Your task to perform on an android device: Open CNN.com Image 0: 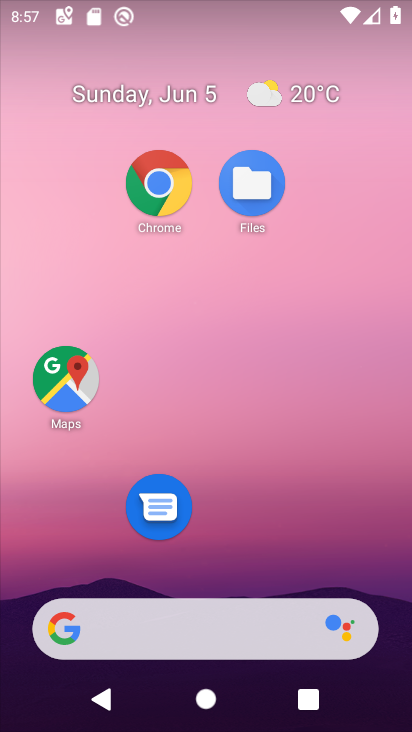
Step 0: click (148, 180)
Your task to perform on an android device: Open CNN.com Image 1: 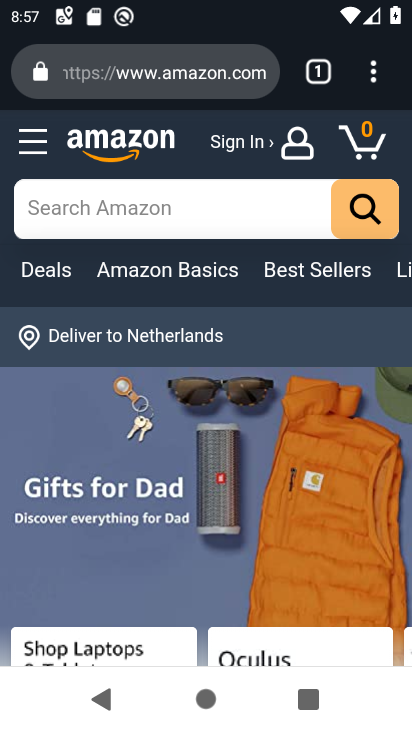
Step 1: click (312, 77)
Your task to perform on an android device: Open CNN.com Image 2: 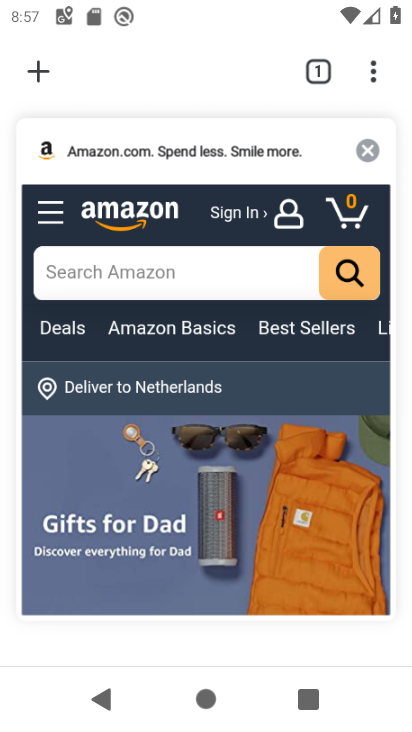
Step 2: click (42, 70)
Your task to perform on an android device: Open CNN.com Image 3: 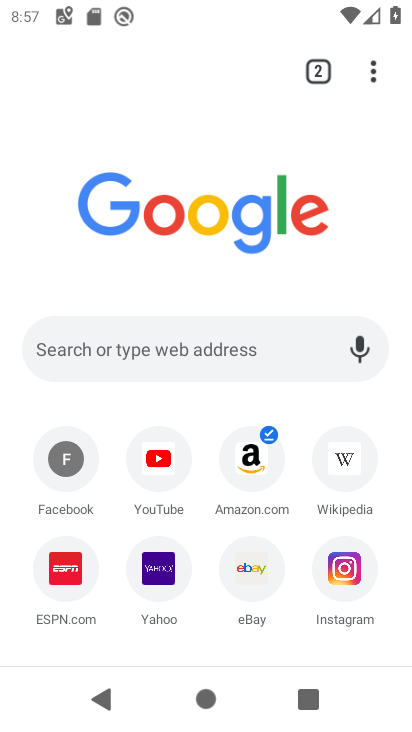
Step 3: click (185, 371)
Your task to perform on an android device: Open CNN.com Image 4: 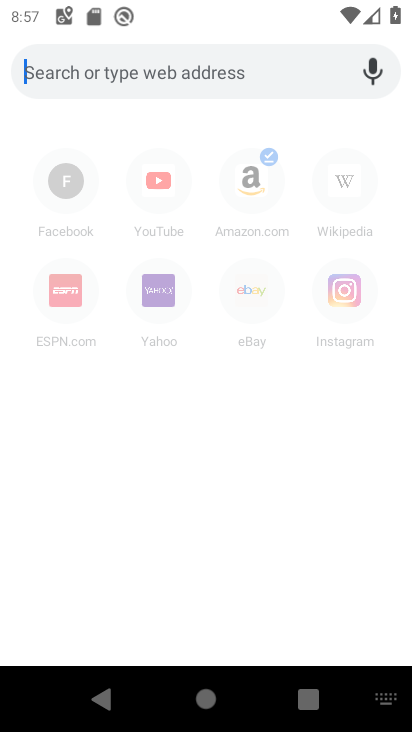
Step 4: type "cnn"
Your task to perform on an android device: Open CNN.com Image 5: 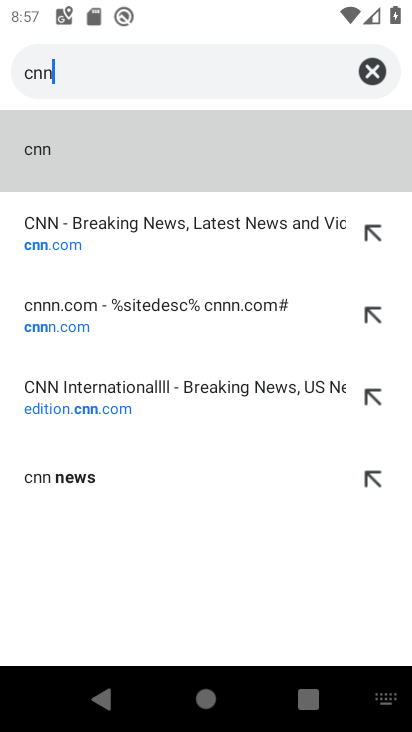
Step 5: click (260, 225)
Your task to perform on an android device: Open CNN.com Image 6: 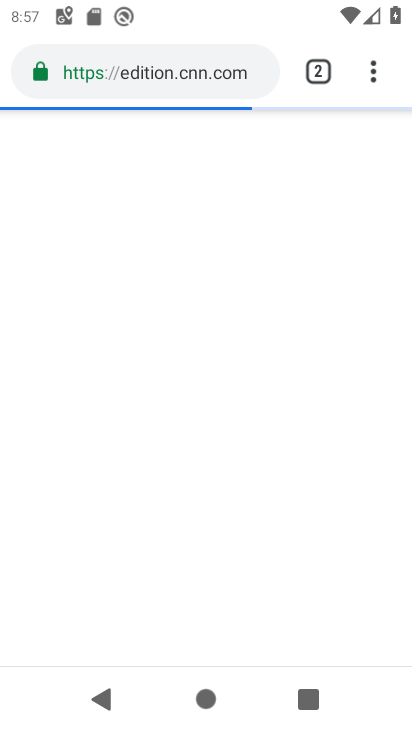
Step 6: task complete